Your task to perform on an android device: change the clock display to digital Image 0: 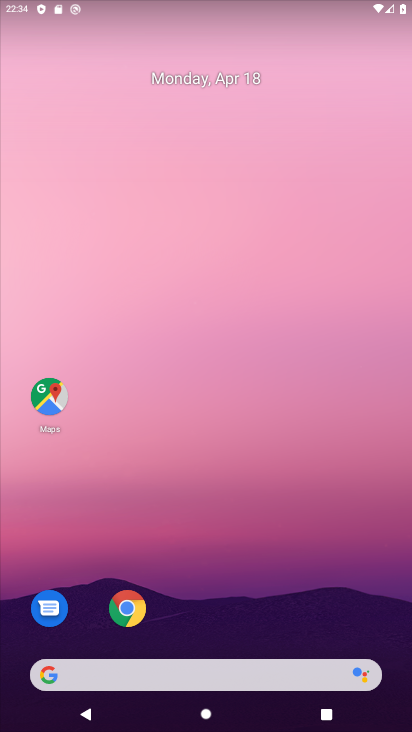
Step 0: drag from (300, 519) to (231, 156)
Your task to perform on an android device: change the clock display to digital Image 1: 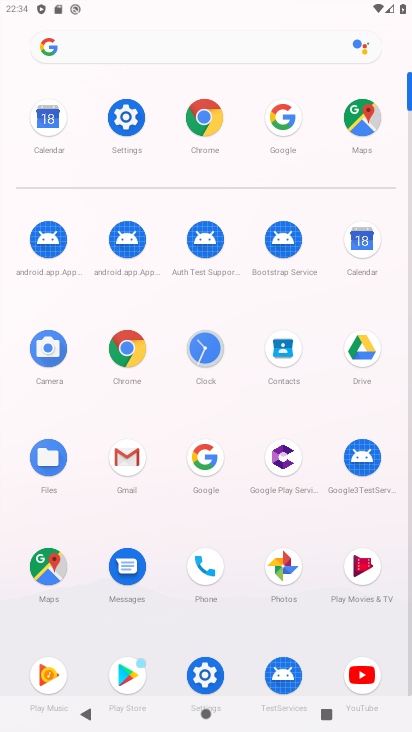
Step 1: click (203, 342)
Your task to perform on an android device: change the clock display to digital Image 2: 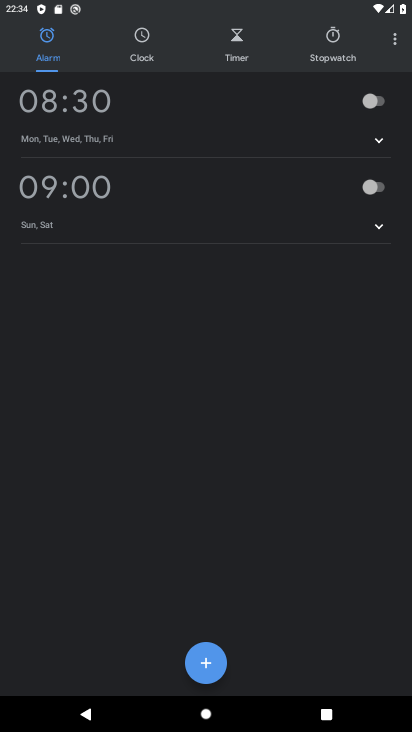
Step 2: click (392, 40)
Your task to perform on an android device: change the clock display to digital Image 3: 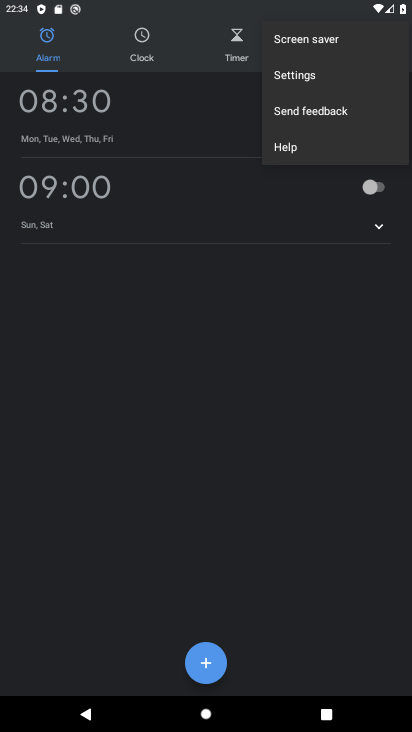
Step 3: click (284, 73)
Your task to perform on an android device: change the clock display to digital Image 4: 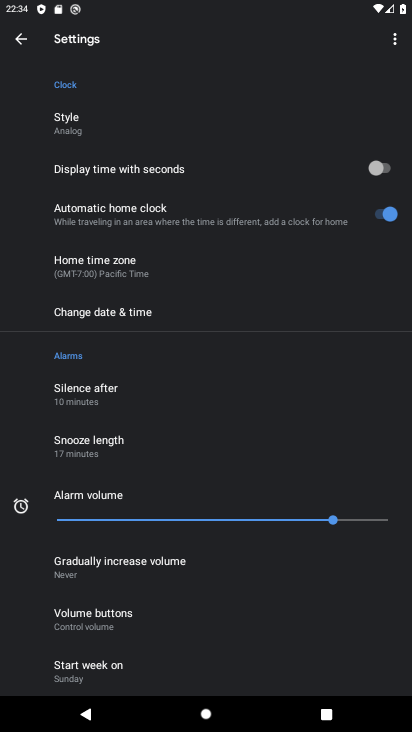
Step 4: click (124, 127)
Your task to perform on an android device: change the clock display to digital Image 5: 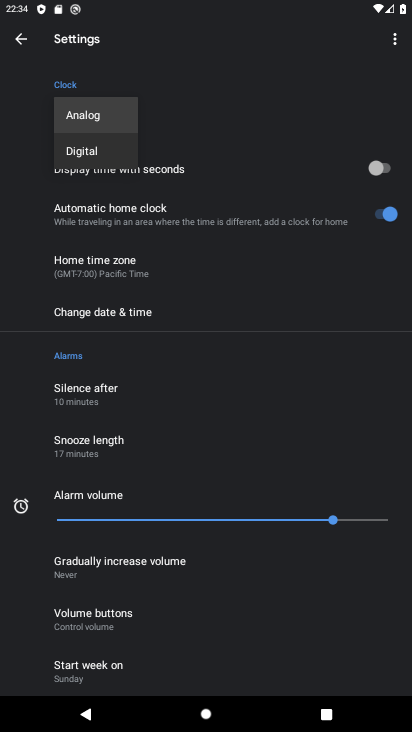
Step 5: click (96, 145)
Your task to perform on an android device: change the clock display to digital Image 6: 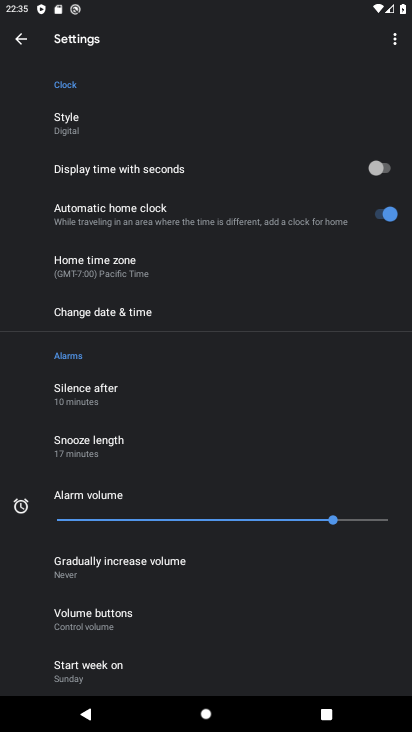
Step 6: task complete